Your task to perform on an android device: Go to Yahoo.com Image 0: 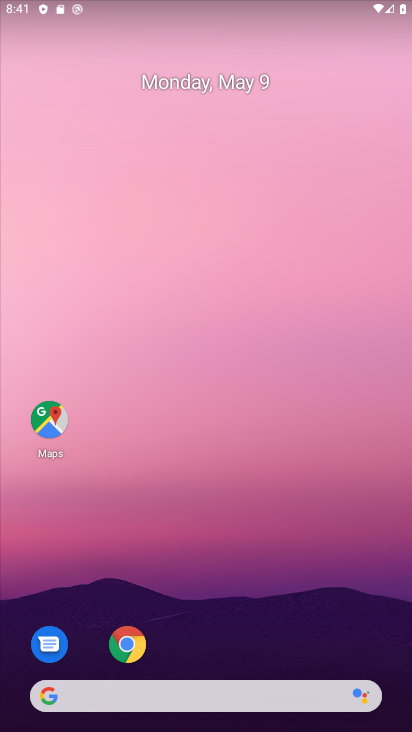
Step 0: click (127, 642)
Your task to perform on an android device: Go to Yahoo.com Image 1: 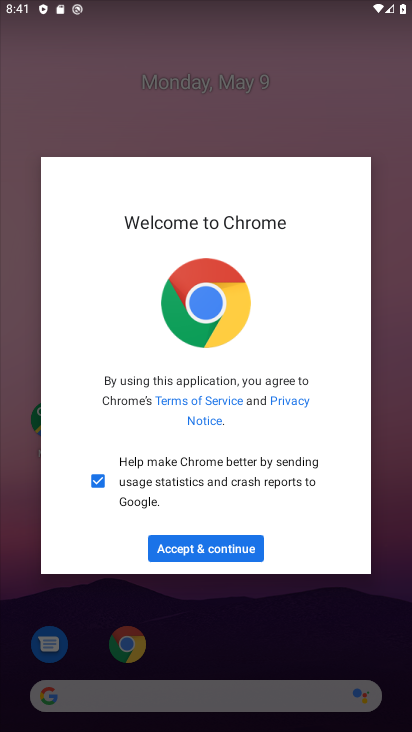
Step 1: click (243, 548)
Your task to perform on an android device: Go to Yahoo.com Image 2: 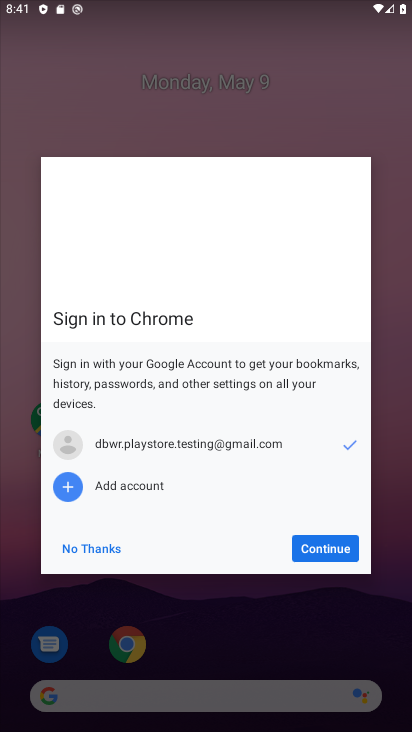
Step 2: click (348, 544)
Your task to perform on an android device: Go to Yahoo.com Image 3: 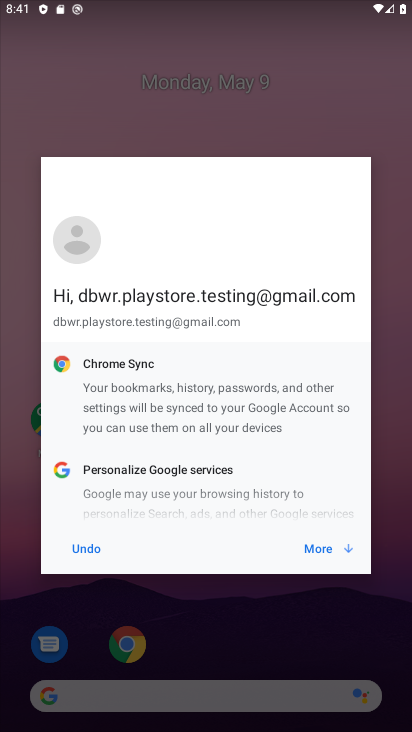
Step 3: click (348, 545)
Your task to perform on an android device: Go to Yahoo.com Image 4: 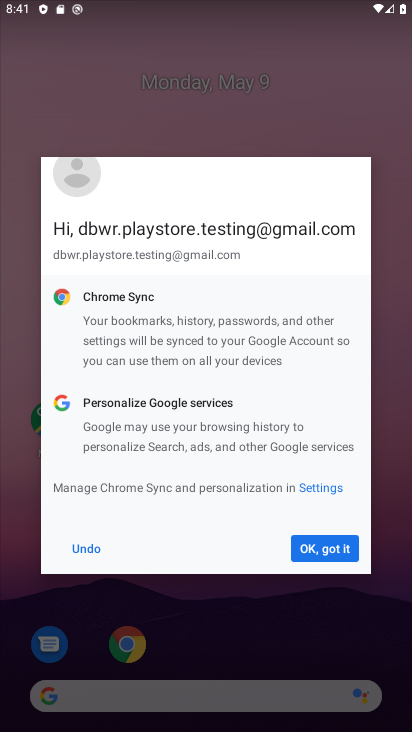
Step 4: click (335, 546)
Your task to perform on an android device: Go to Yahoo.com Image 5: 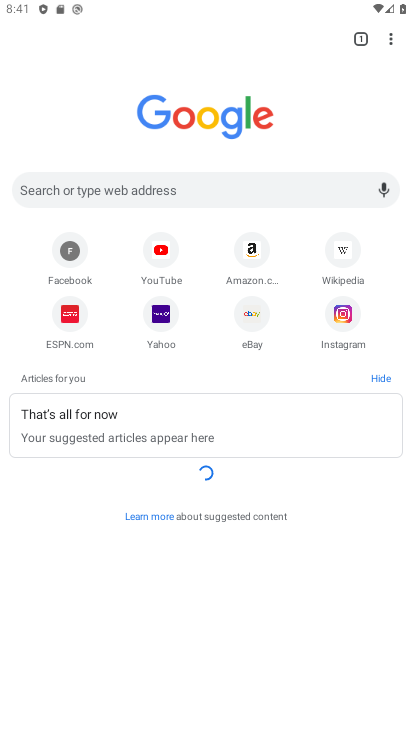
Step 5: click (160, 313)
Your task to perform on an android device: Go to Yahoo.com Image 6: 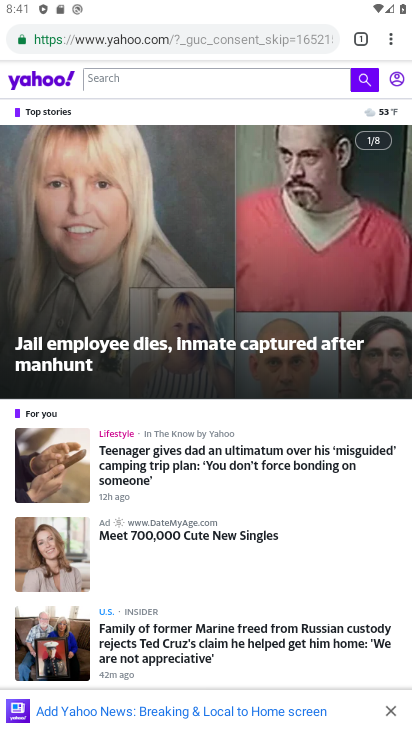
Step 6: task complete